Your task to perform on an android device: find which apps use the phone's location Image 0: 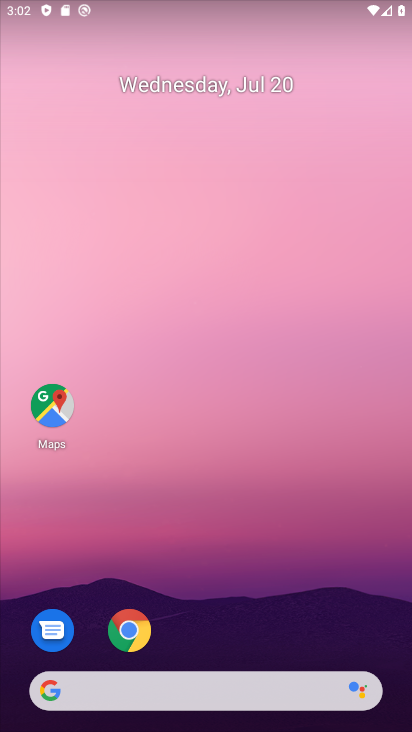
Step 0: drag from (250, 652) to (225, 264)
Your task to perform on an android device: find which apps use the phone's location Image 1: 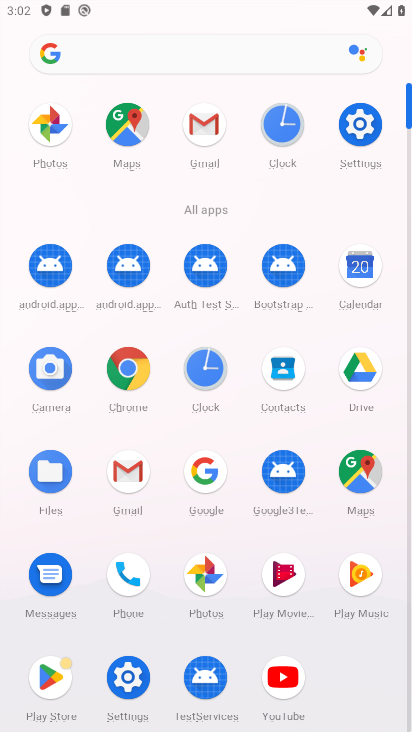
Step 1: click (138, 671)
Your task to perform on an android device: find which apps use the phone's location Image 2: 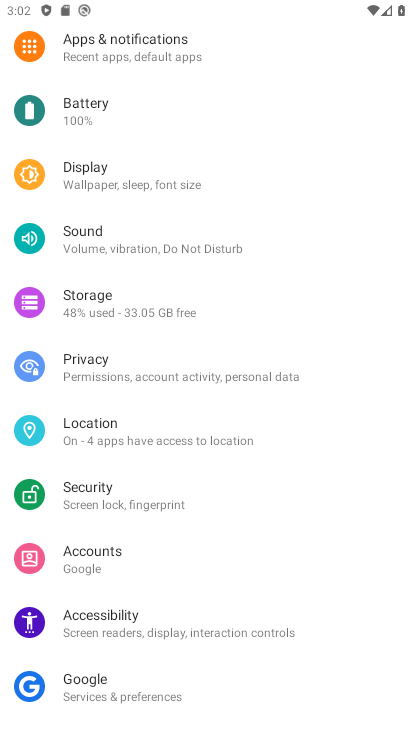
Step 2: click (130, 442)
Your task to perform on an android device: find which apps use the phone's location Image 3: 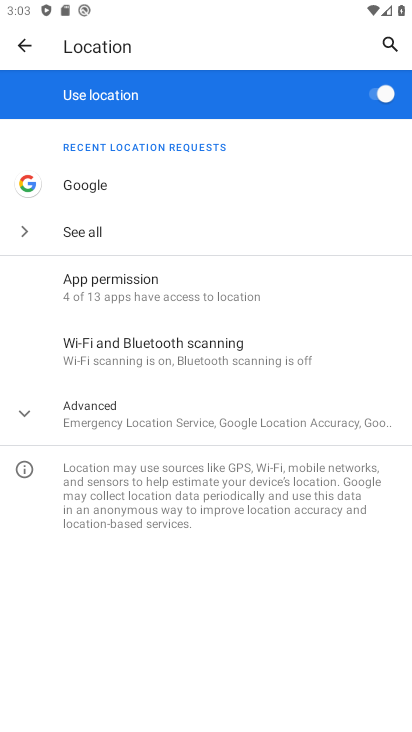
Step 3: click (125, 408)
Your task to perform on an android device: find which apps use the phone's location Image 4: 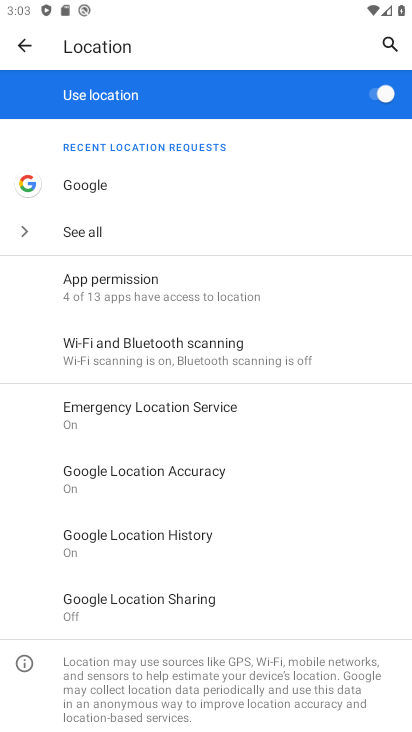
Step 4: click (198, 276)
Your task to perform on an android device: find which apps use the phone's location Image 5: 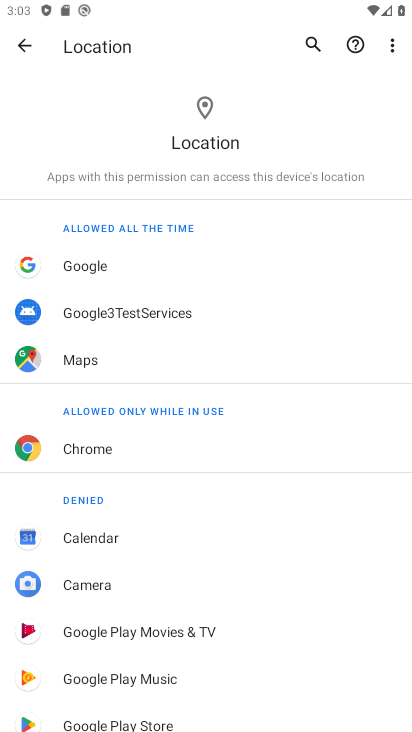
Step 5: task complete